Your task to perform on an android device: Open network settings Image 0: 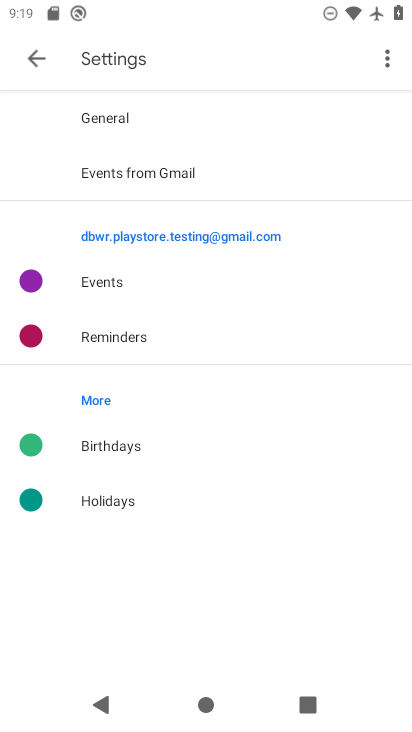
Step 0: press home button
Your task to perform on an android device: Open network settings Image 1: 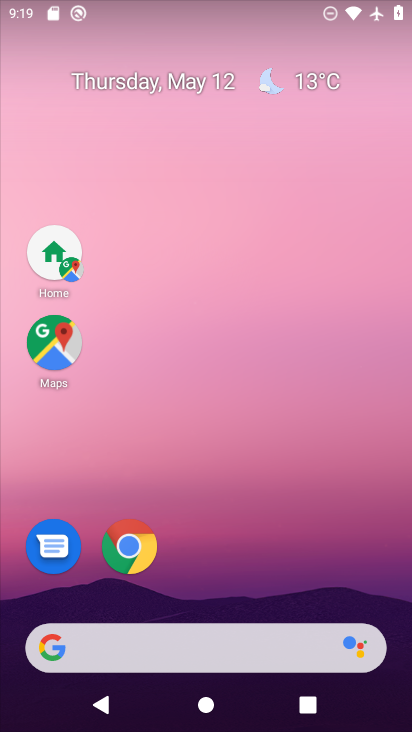
Step 1: drag from (204, 639) to (254, 3)
Your task to perform on an android device: Open network settings Image 2: 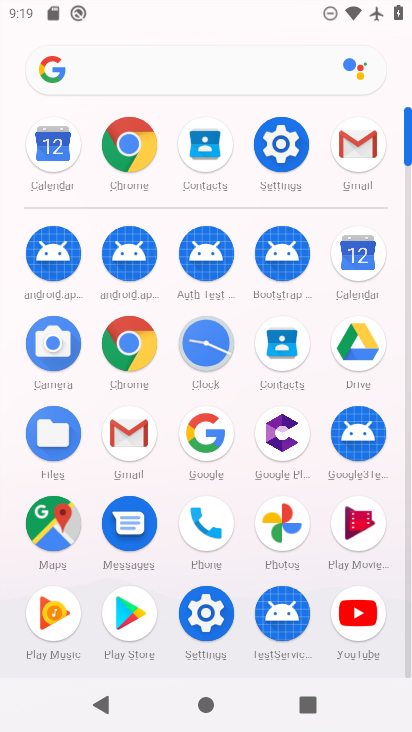
Step 2: click (285, 157)
Your task to perform on an android device: Open network settings Image 3: 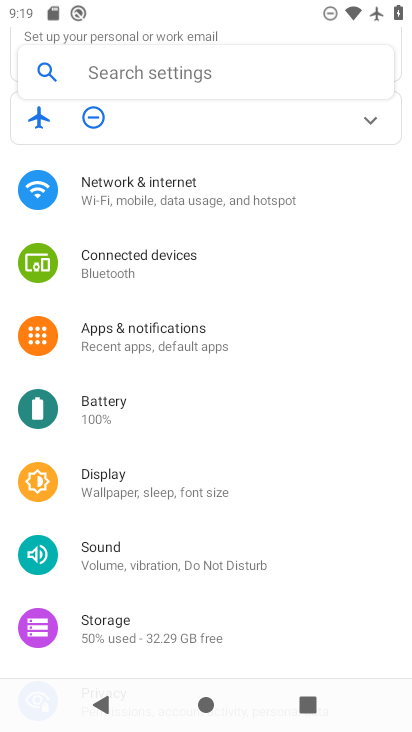
Step 3: click (173, 193)
Your task to perform on an android device: Open network settings Image 4: 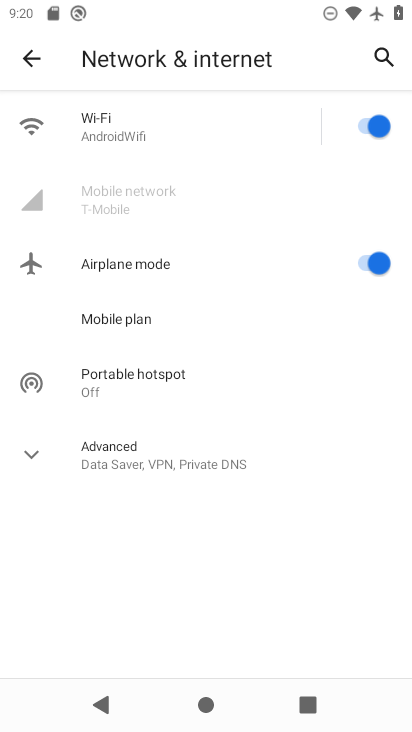
Step 4: task complete